Your task to perform on an android device: Open sound settings Image 0: 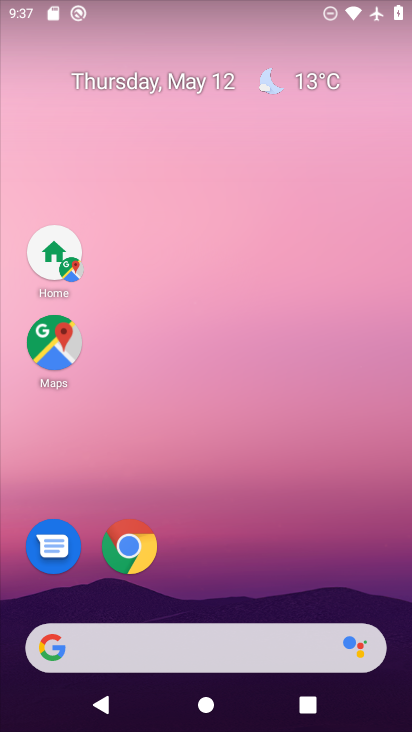
Step 0: drag from (182, 566) to (278, 161)
Your task to perform on an android device: Open sound settings Image 1: 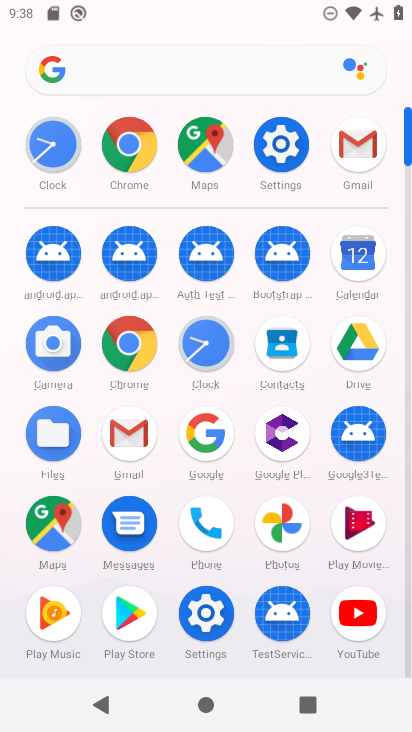
Step 1: click (280, 150)
Your task to perform on an android device: Open sound settings Image 2: 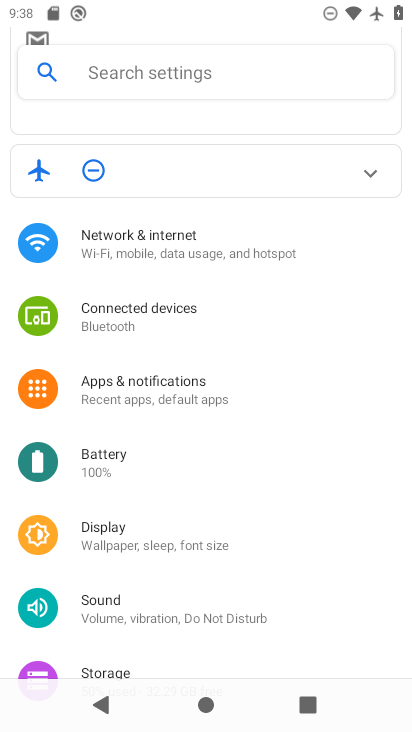
Step 2: click (140, 608)
Your task to perform on an android device: Open sound settings Image 3: 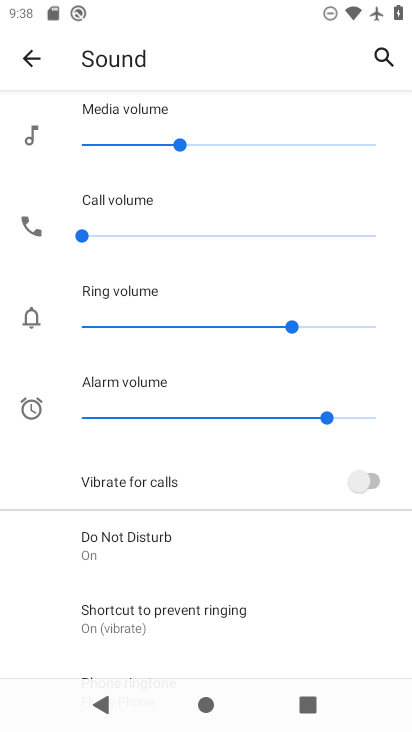
Step 3: task complete